Your task to perform on an android device: Is it going to rain today? Image 0: 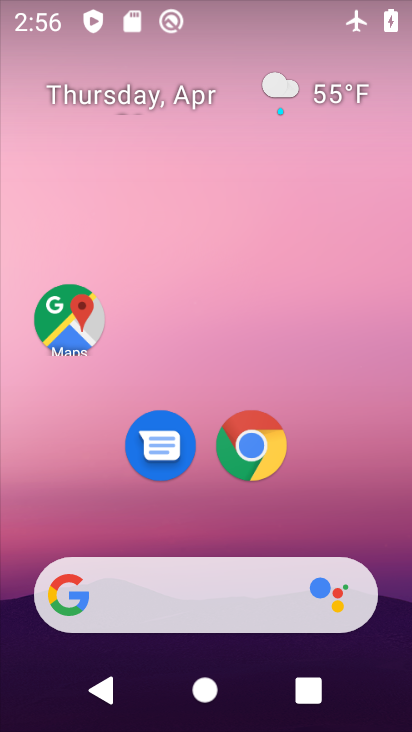
Step 0: drag from (297, 507) to (292, 50)
Your task to perform on an android device: Is it going to rain today? Image 1: 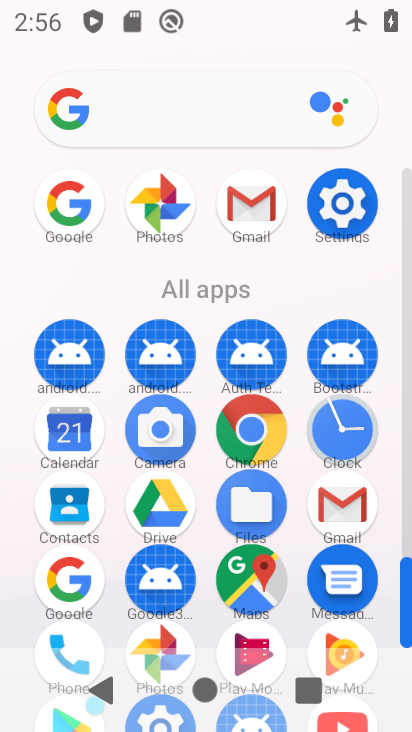
Step 1: click (66, 197)
Your task to perform on an android device: Is it going to rain today? Image 2: 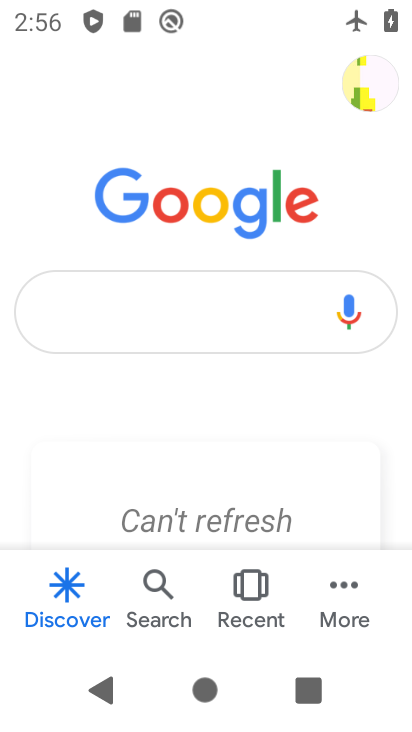
Step 2: click (192, 303)
Your task to perform on an android device: Is it going to rain today? Image 3: 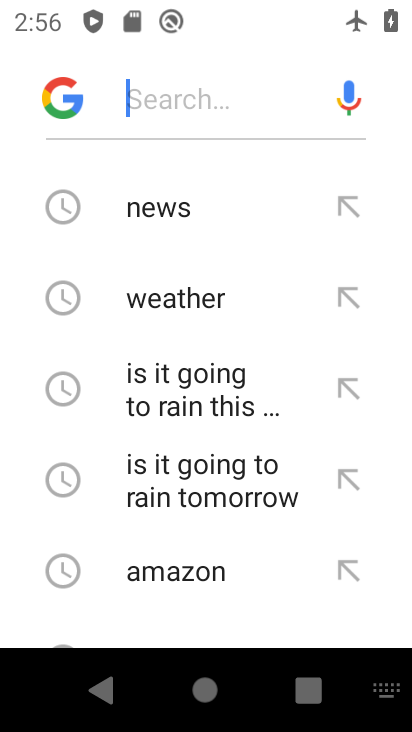
Step 3: click (190, 301)
Your task to perform on an android device: Is it going to rain today? Image 4: 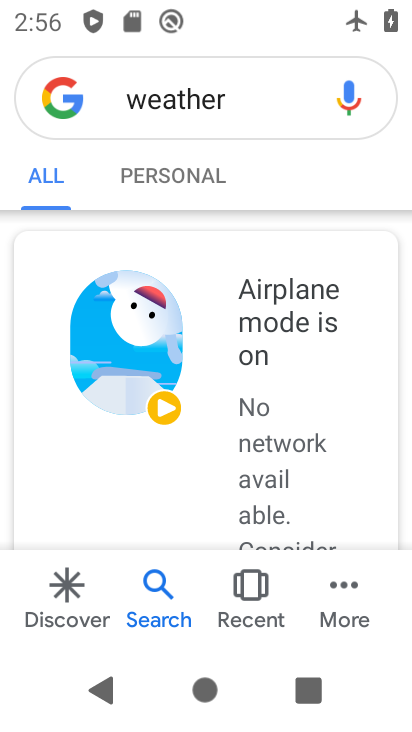
Step 4: task complete